Your task to perform on an android device: Go to Reddit.com Image 0: 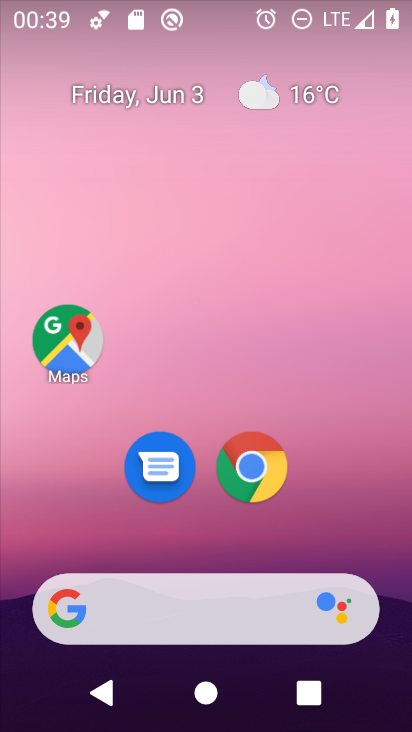
Step 0: click (250, 469)
Your task to perform on an android device: Go to Reddit.com Image 1: 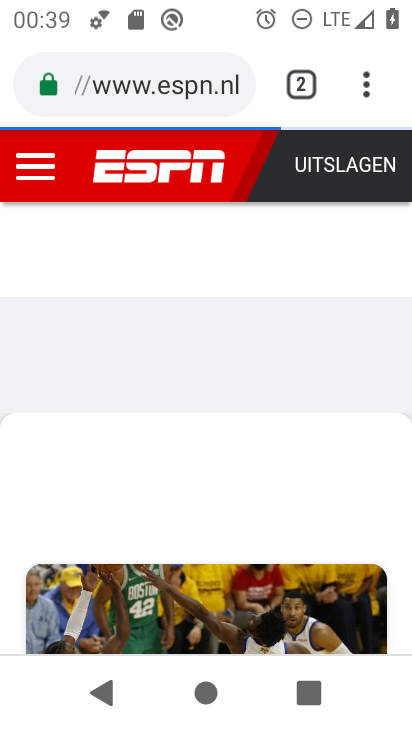
Step 1: click (243, 74)
Your task to perform on an android device: Go to Reddit.com Image 2: 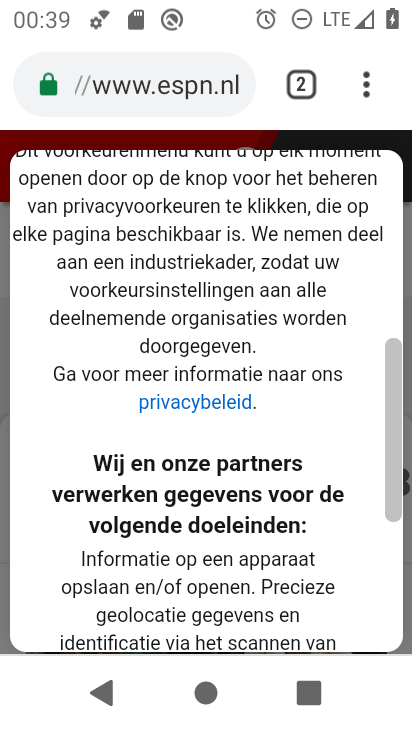
Step 2: click (209, 64)
Your task to perform on an android device: Go to Reddit.com Image 3: 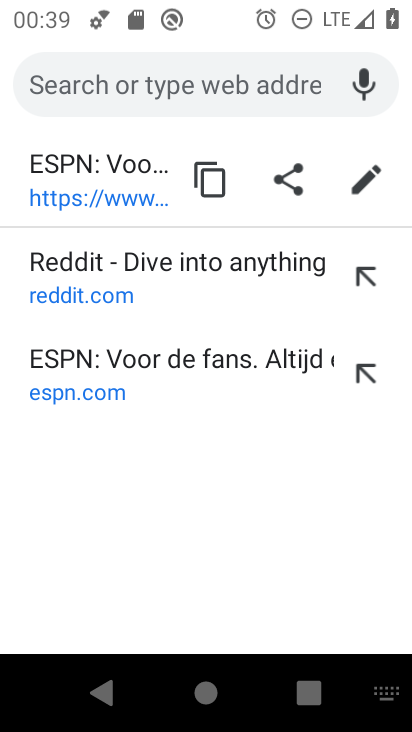
Step 3: type "reddit.com"
Your task to perform on an android device: Go to Reddit.com Image 4: 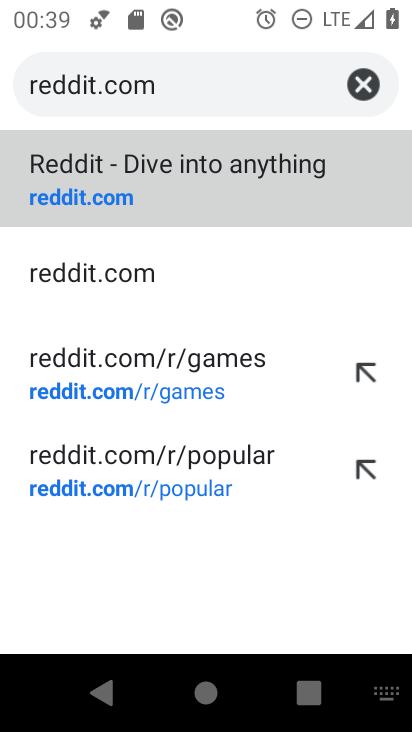
Step 4: click (67, 171)
Your task to perform on an android device: Go to Reddit.com Image 5: 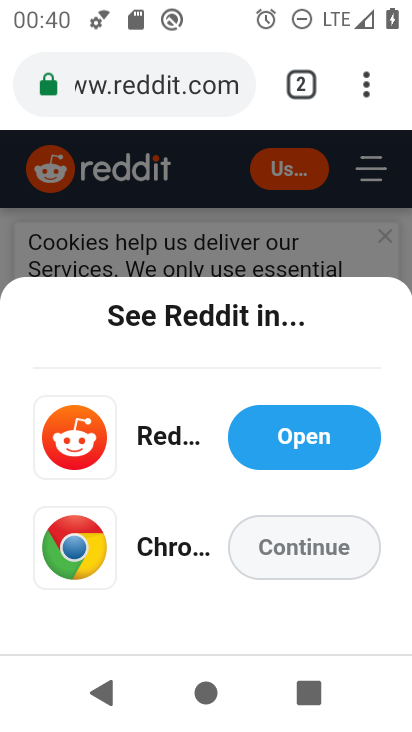
Step 5: task complete